Your task to perform on an android device: open app "File Manager" Image 0: 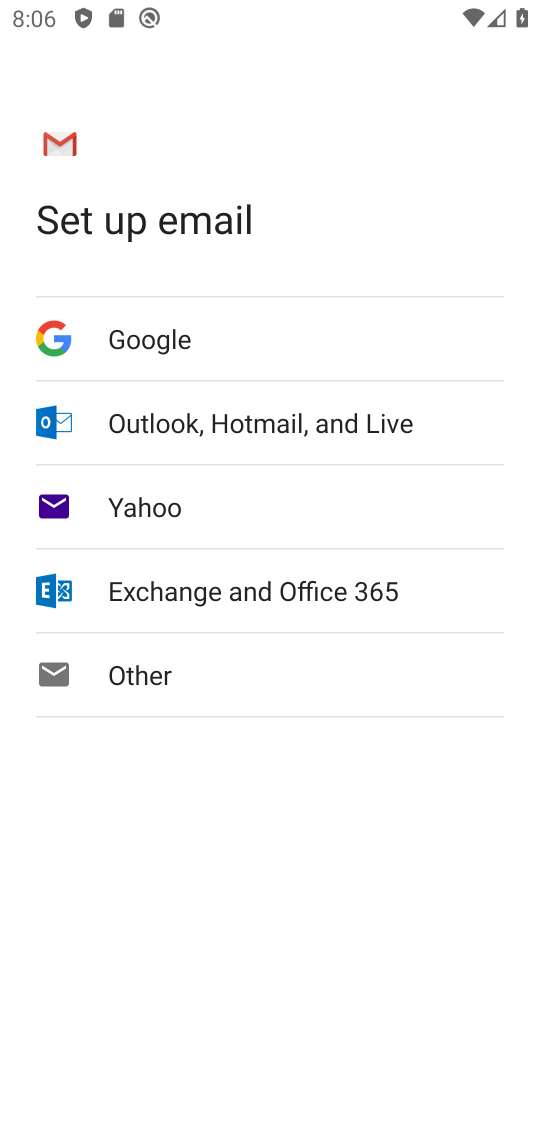
Step 0: press home button
Your task to perform on an android device: open app "File Manager" Image 1: 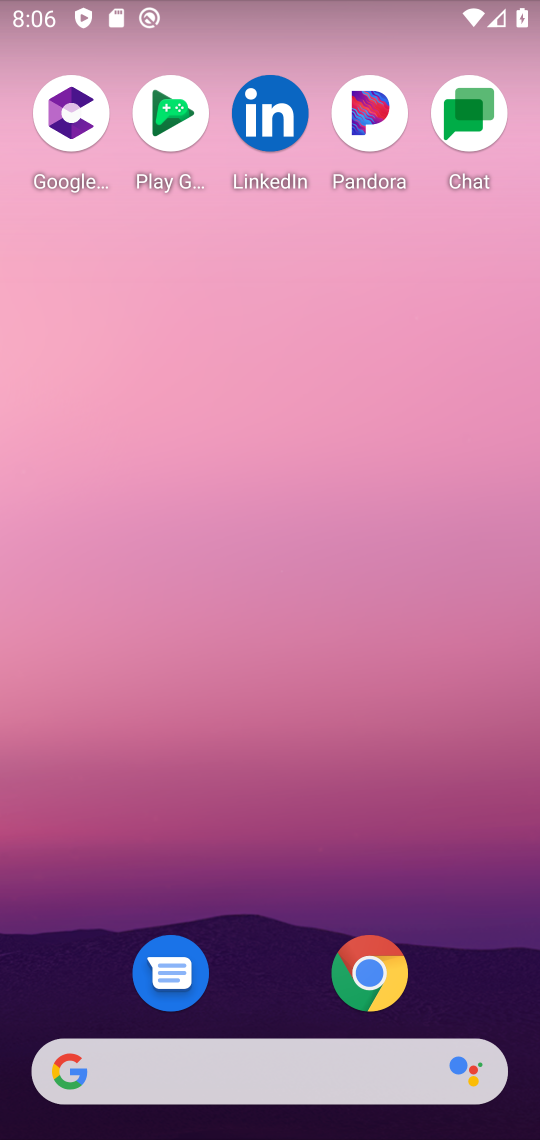
Step 1: drag from (241, 126) to (164, 11)
Your task to perform on an android device: open app "File Manager" Image 2: 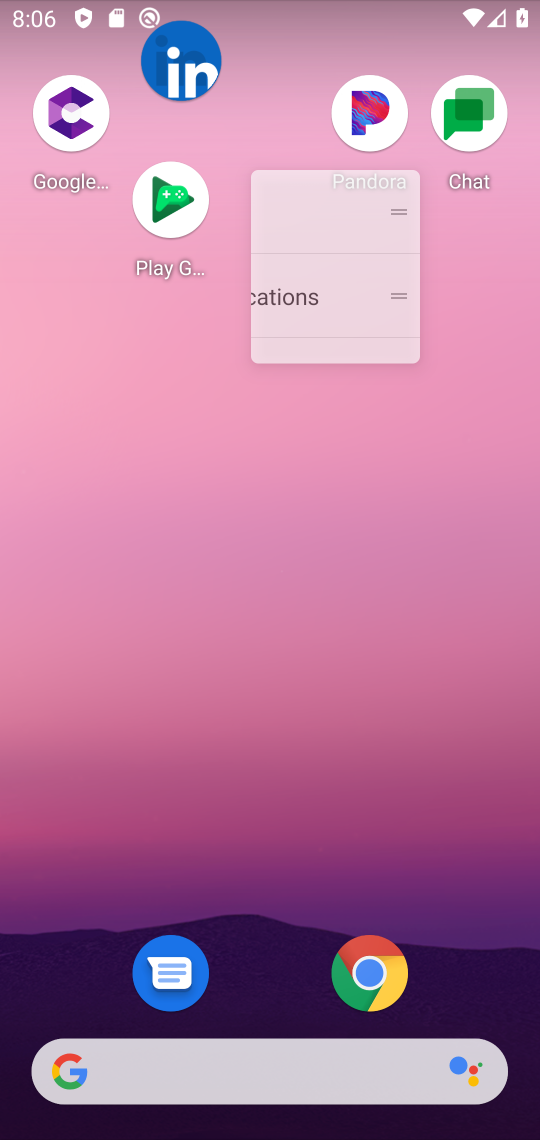
Step 2: click (281, 973)
Your task to perform on an android device: open app "File Manager" Image 3: 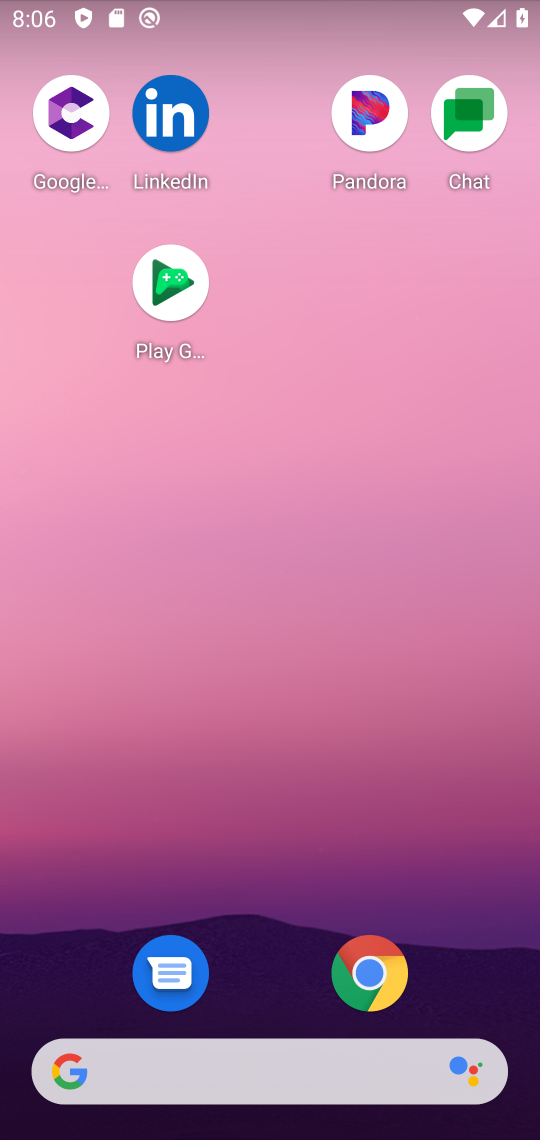
Step 3: drag from (273, 909) to (240, 38)
Your task to perform on an android device: open app "File Manager" Image 4: 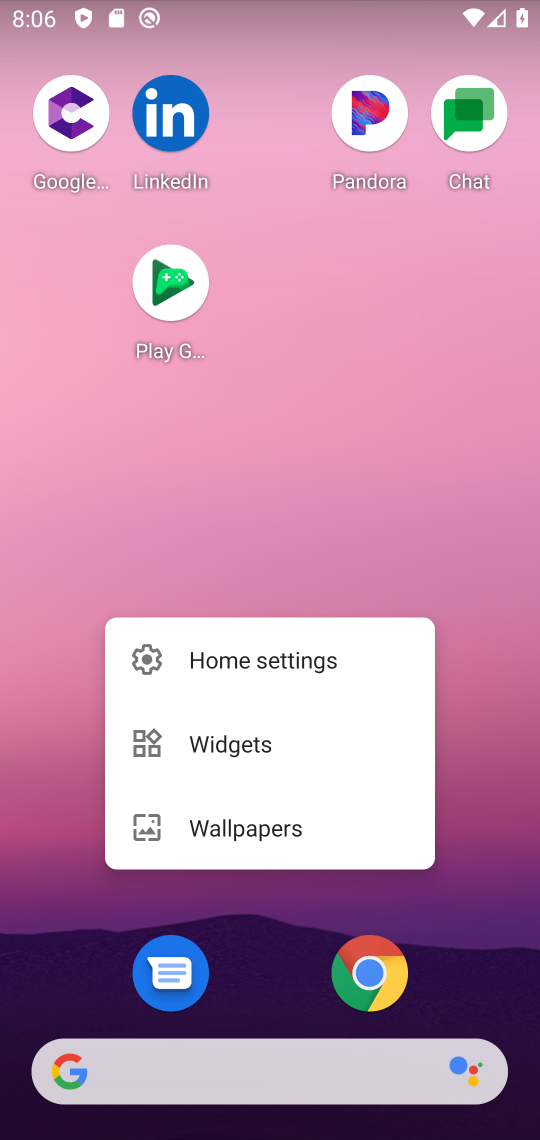
Step 4: click (241, 980)
Your task to perform on an android device: open app "File Manager" Image 5: 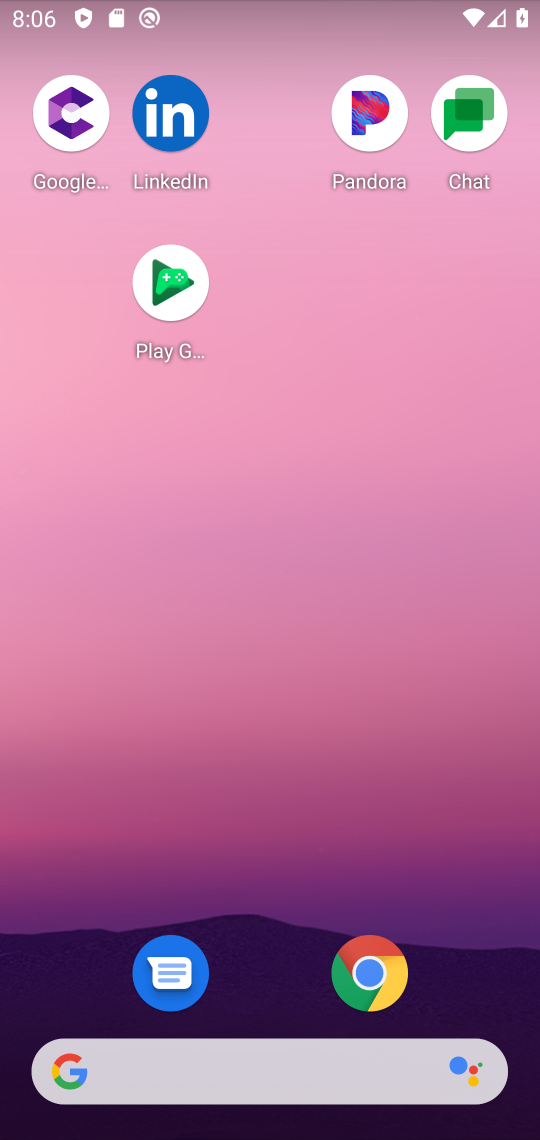
Step 5: drag from (241, 980) to (281, 11)
Your task to perform on an android device: open app "File Manager" Image 6: 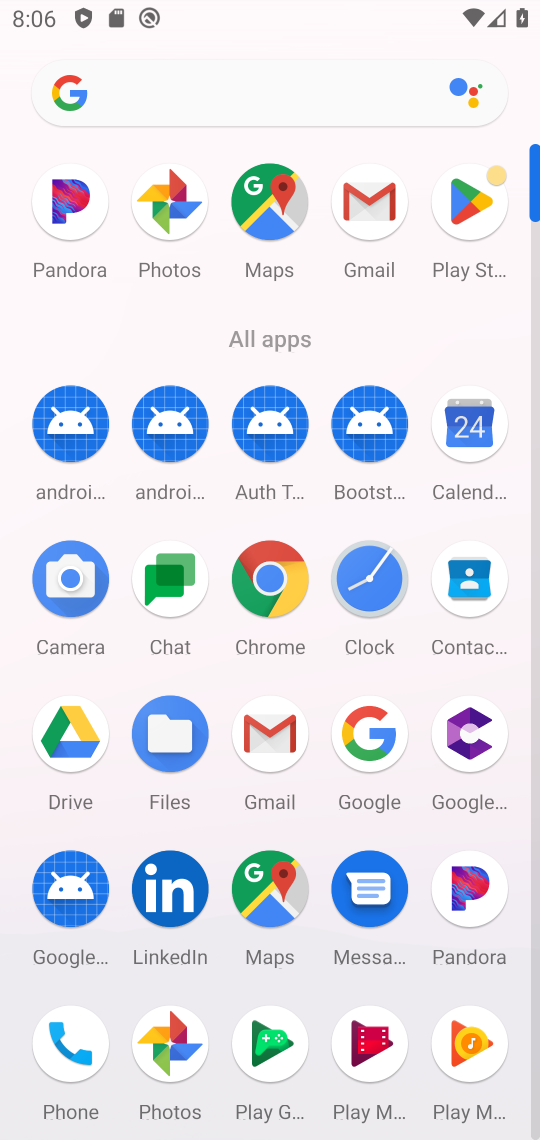
Step 6: click (460, 214)
Your task to perform on an android device: open app "File Manager" Image 7: 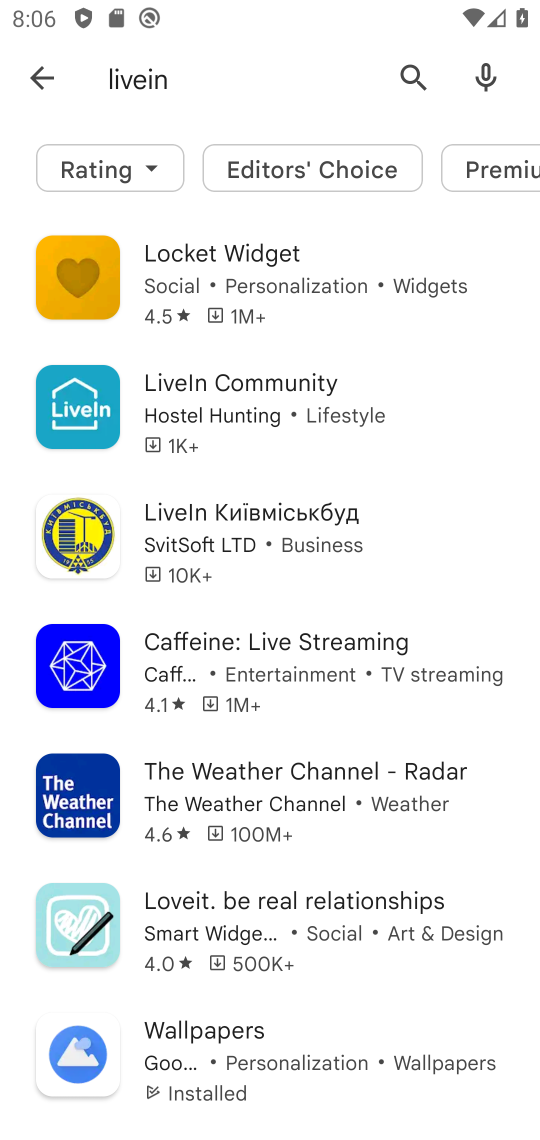
Step 7: click (37, 69)
Your task to perform on an android device: open app "File Manager" Image 8: 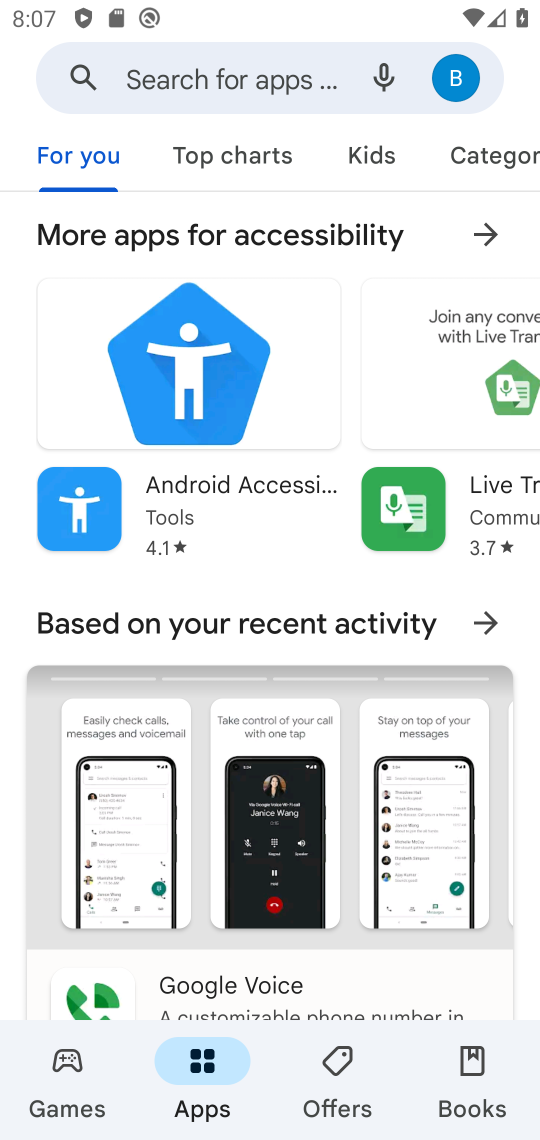
Step 8: click (217, 86)
Your task to perform on an android device: open app "File Manager" Image 9: 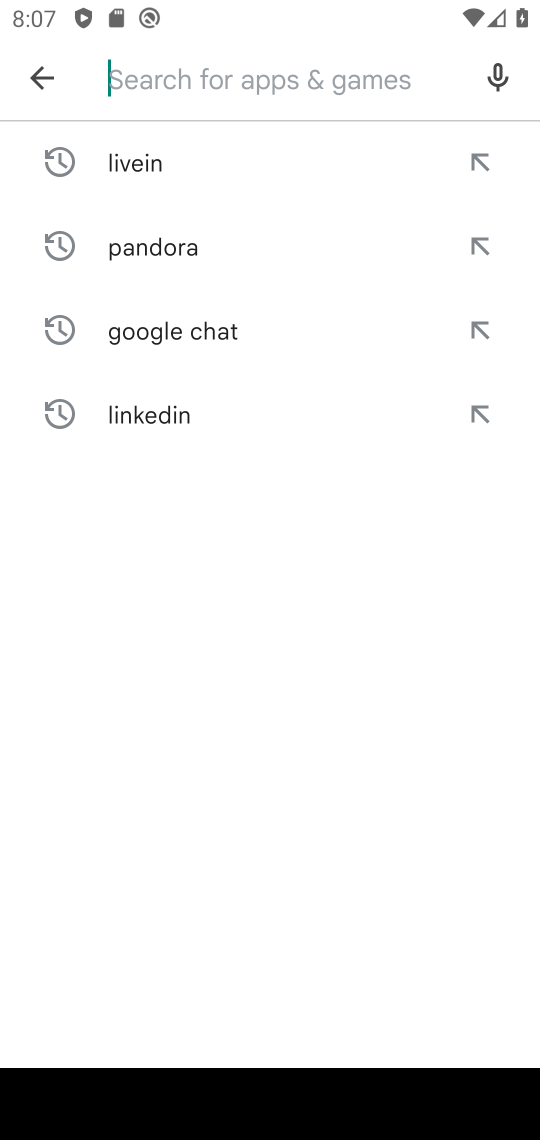
Step 9: type "File Manager"
Your task to perform on an android device: open app "File Manager" Image 10: 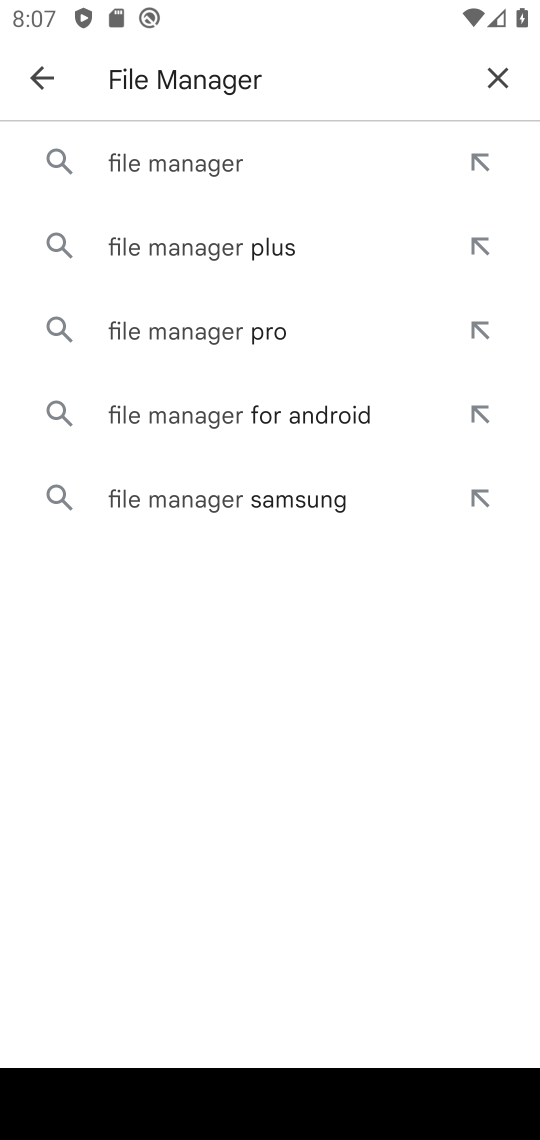
Step 10: click (154, 175)
Your task to perform on an android device: open app "File Manager" Image 11: 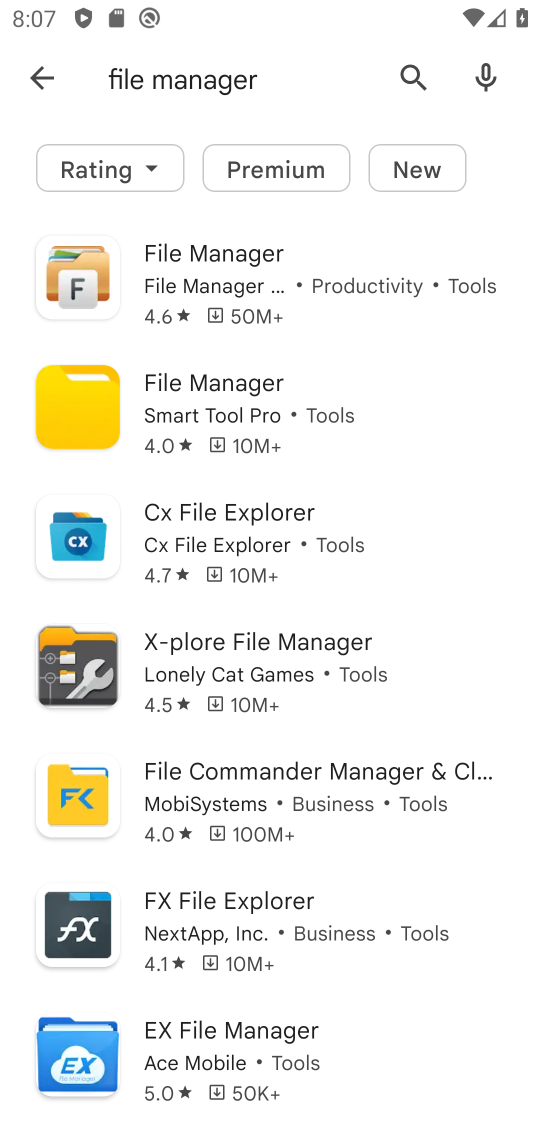
Step 11: click (220, 448)
Your task to perform on an android device: open app "File Manager" Image 12: 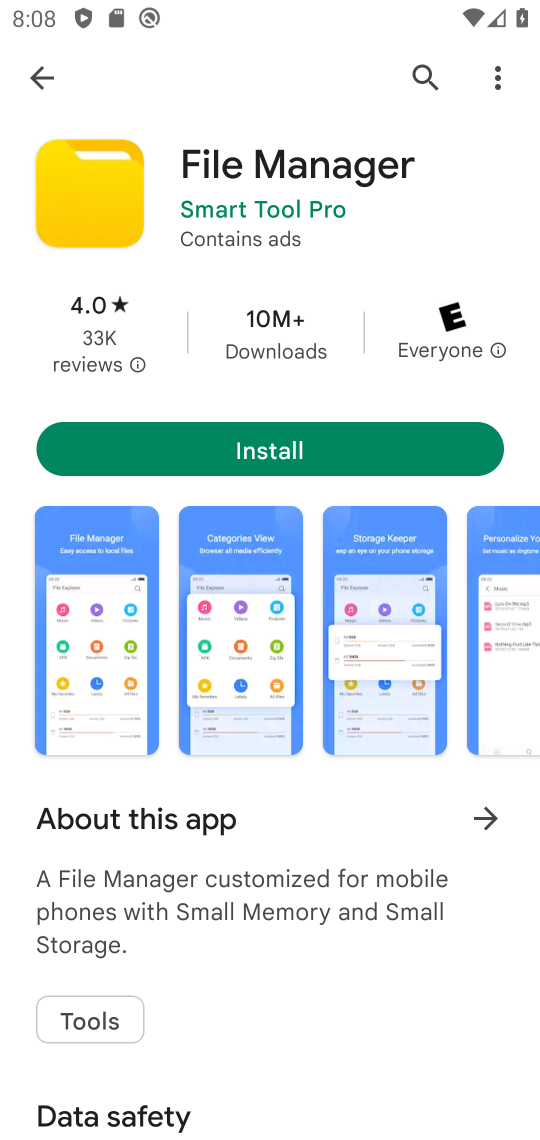
Step 12: click (238, 450)
Your task to perform on an android device: open app "File Manager" Image 13: 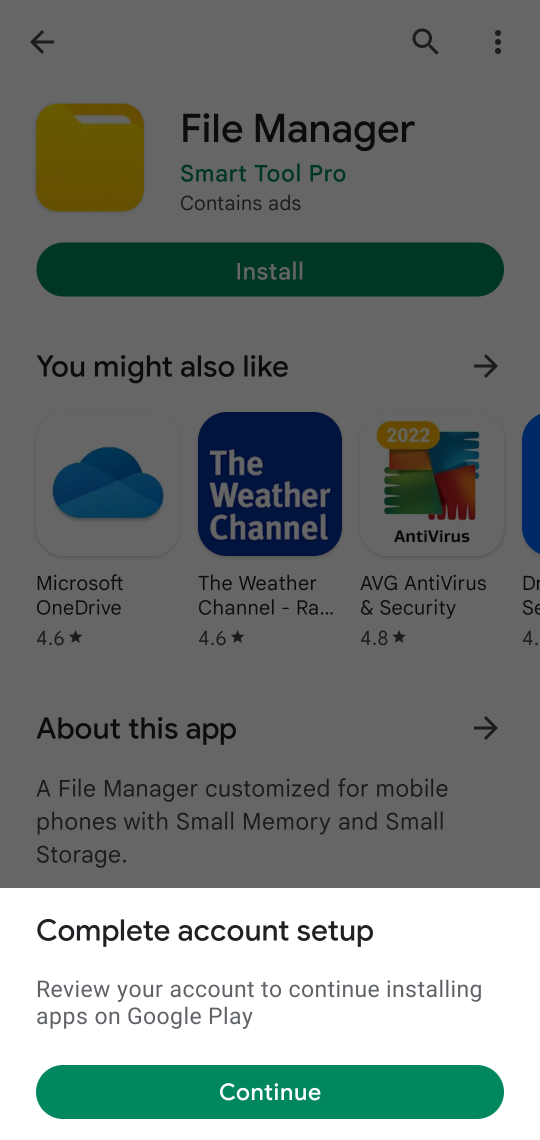
Step 13: click (256, 1082)
Your task to perform on an android device: open app "File Manager" Image 14: 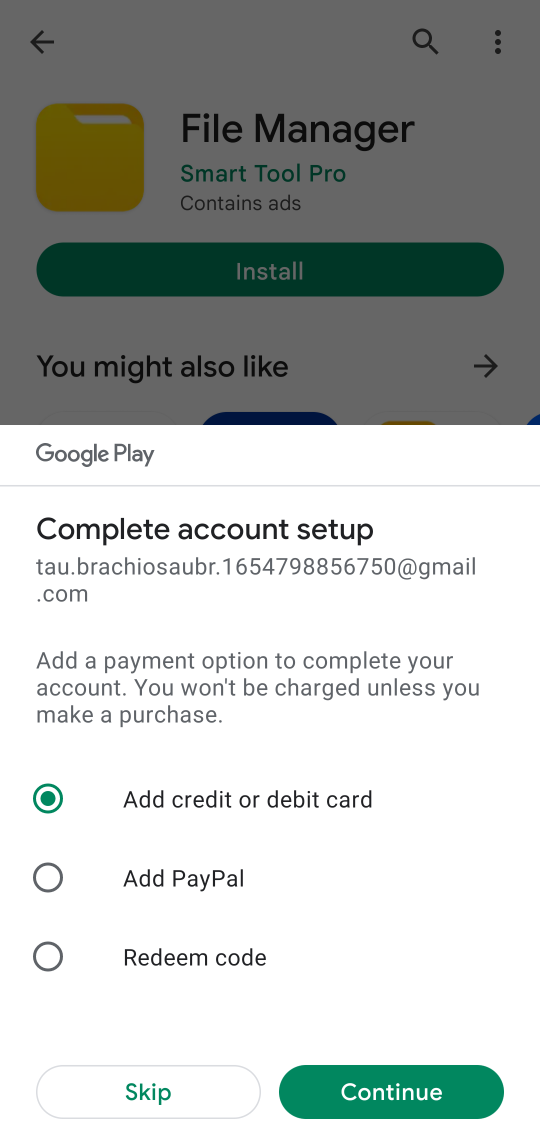
Step 14: click (111, 1075)
Your task to perform on an android device: open app "File Manager" Image 15: 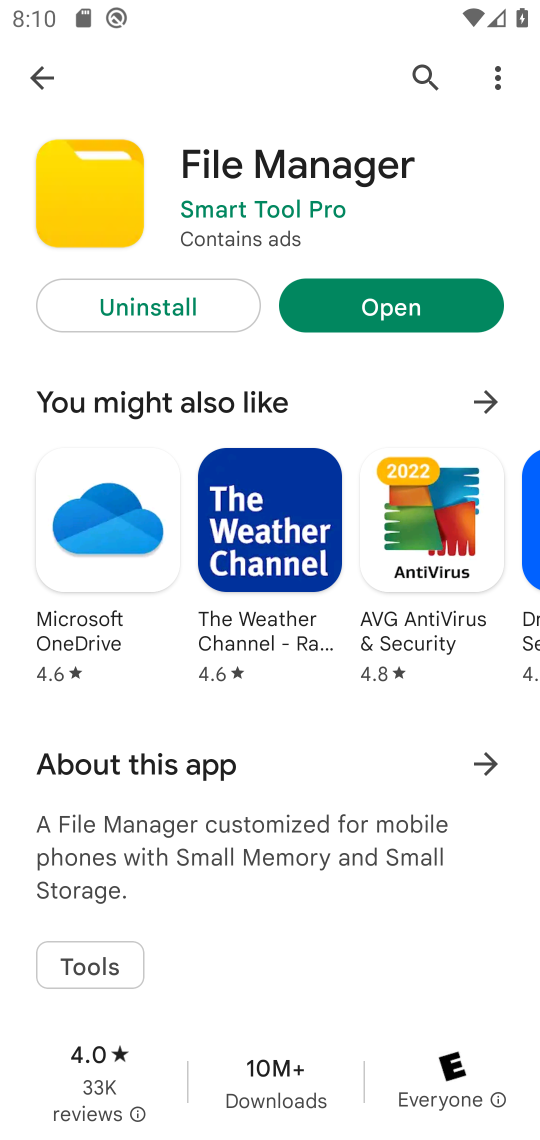
Step 15: click (401, 278)
Your task to perform on an android device: open app "File Manager" Image 16: 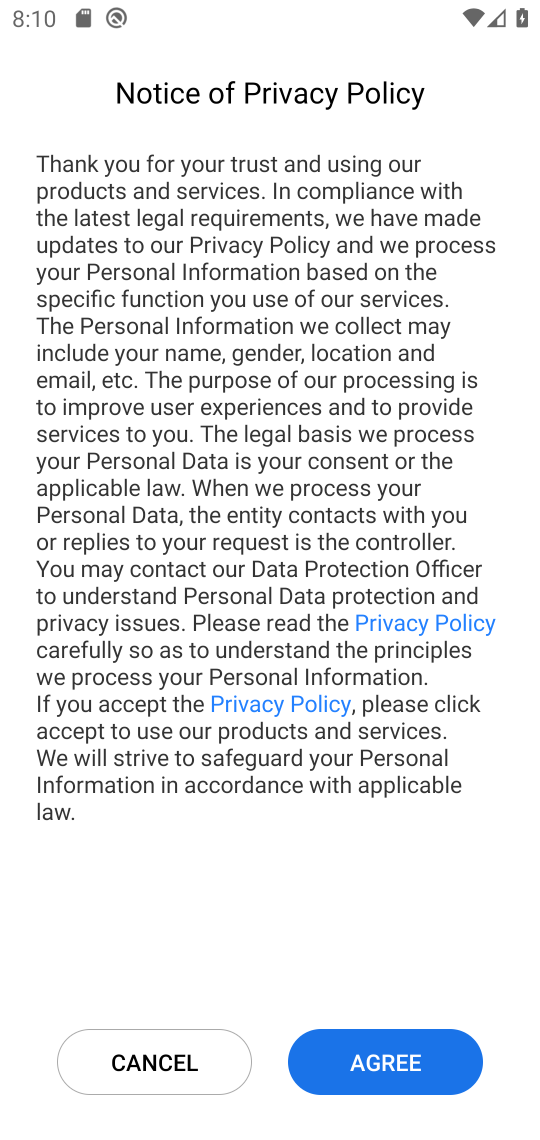
Step 16: click (398, 1035)
Your task to perform on an android device: open app "File Manager" Image 17: 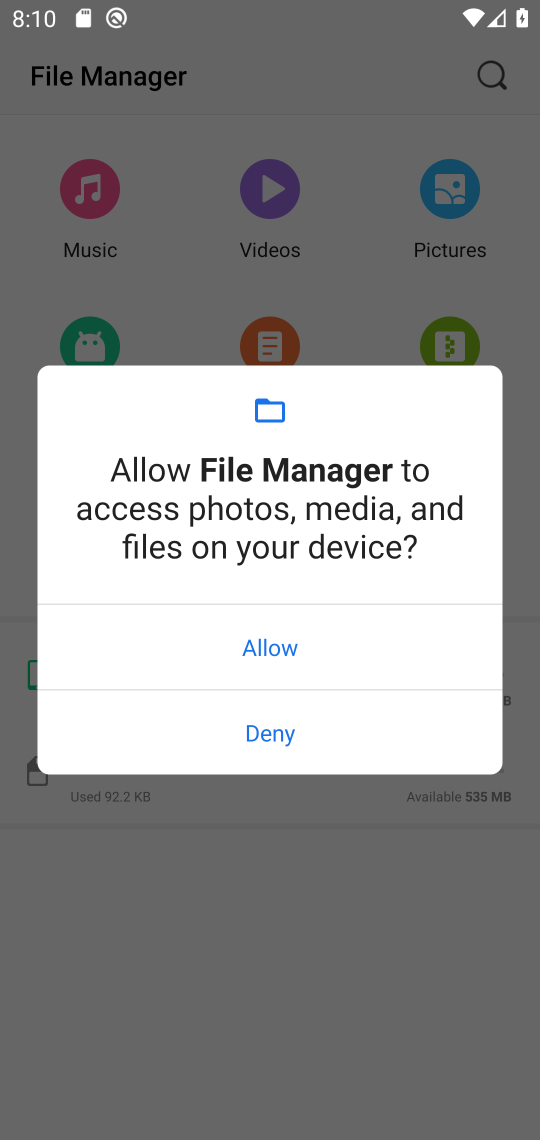
Step 17: click (387, 636)
Your task to perform on an android device: open app "File Manager" Image 18: 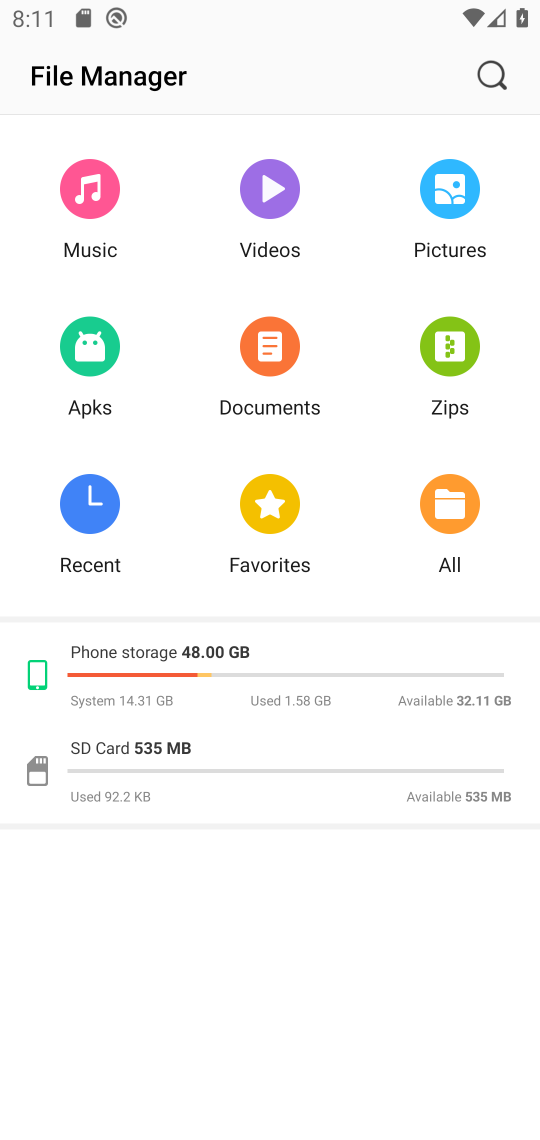
Step 18: task complete